Your task to perform on an android device: turn off location Image 0: 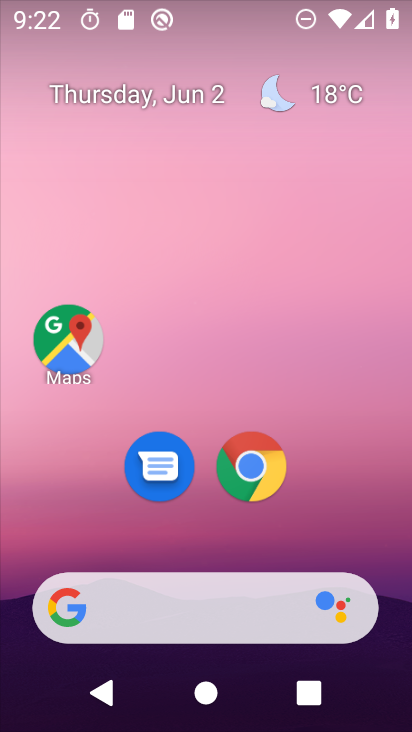
Step 0: press home button
Your task to perform on an android device: turn off location Image 1: 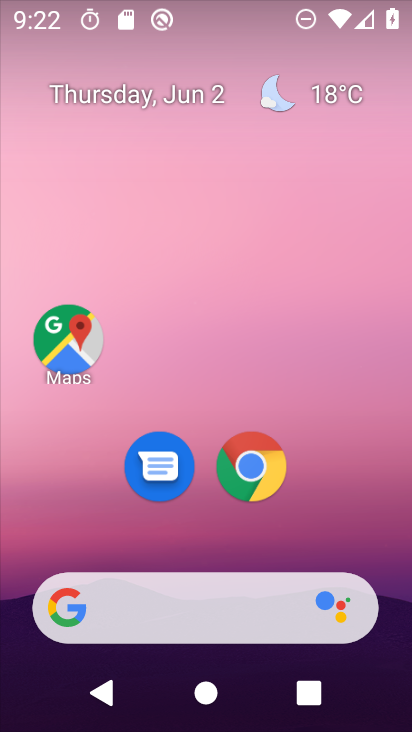
Step 1: drag from (315, 548) to (281, 112)
Your task to perform on an android device: turn off location Image 2: 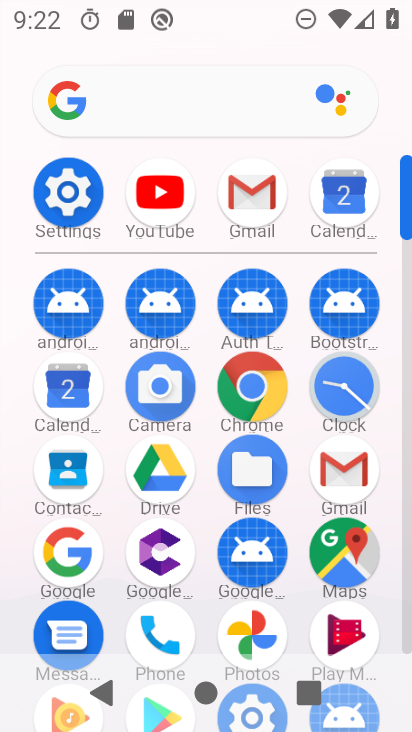
Step 2: click (56, 195)
Your task to perform on an android device: turn off location Image 3: 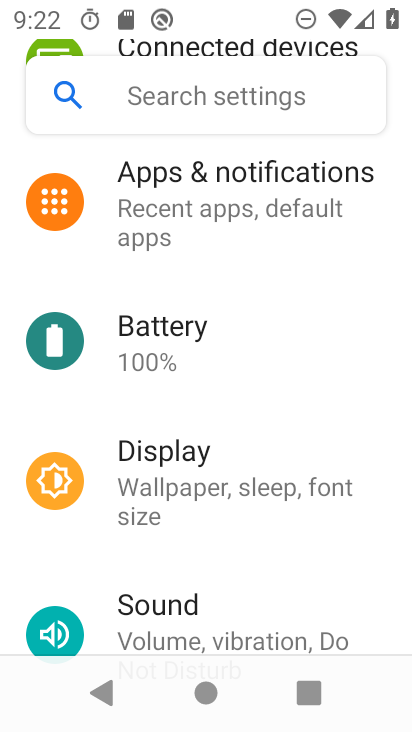
Step 3: drag from (301, 547) to (306, 34)
Your task to perform on an android device: turn off location Image 4: 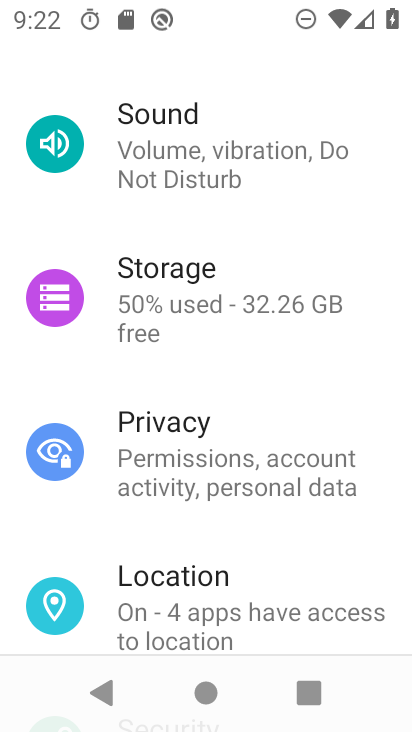
Step 4: click (197, 597)
Your task to perform on an android device: turn off location Image 5: 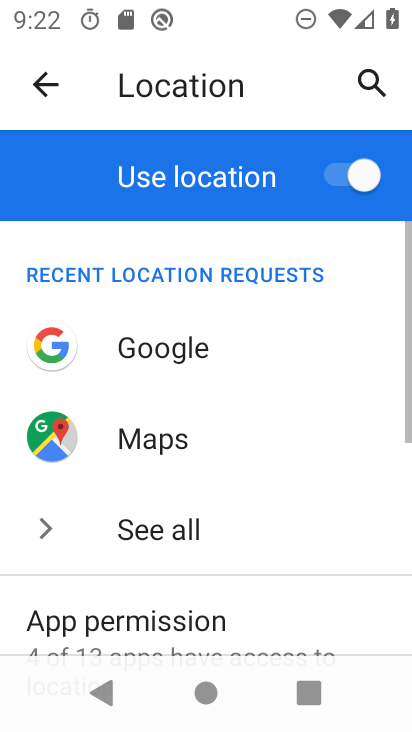
Step 5: click (364, 187)
Your task to perform on an android device: turn off location Image 6: 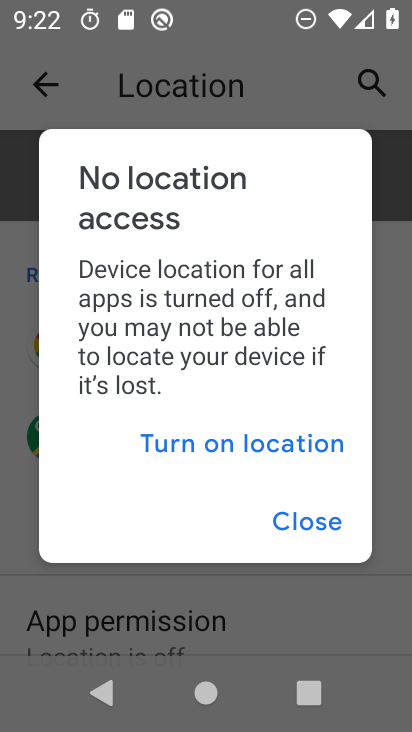
Step 6: click (317, 522)
Your task to perform on an android device: turn off location Image 7: 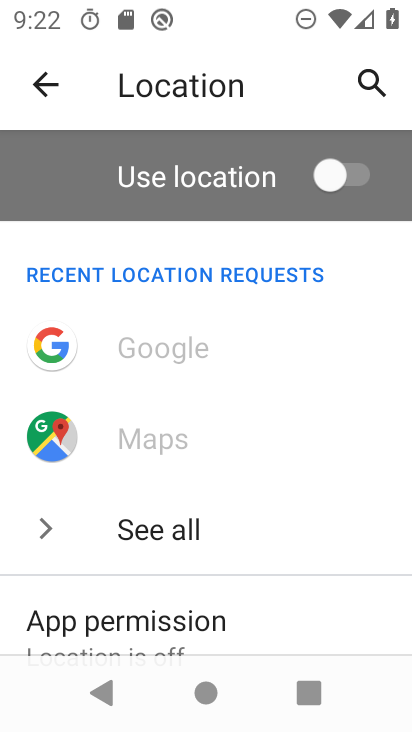
Step 7: task complete